Your task to perform on an android device: Add logitech g910 to the cart on newegg, then select checkout. Image 0: 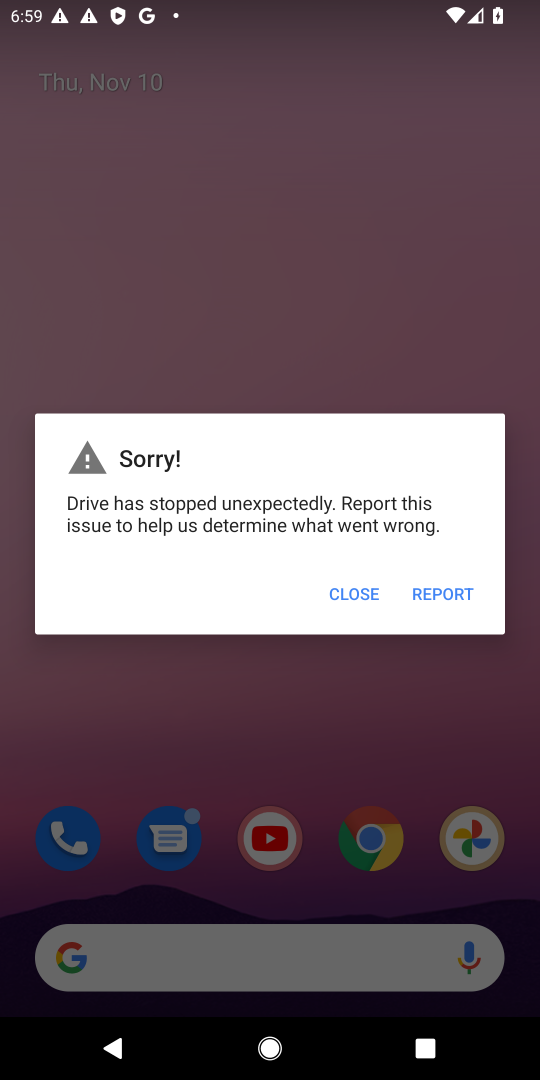
Step 0: press home button
Your task to perform on an android device: Add logitech g910 to the cart on newegg, then select checkout. Image 1: 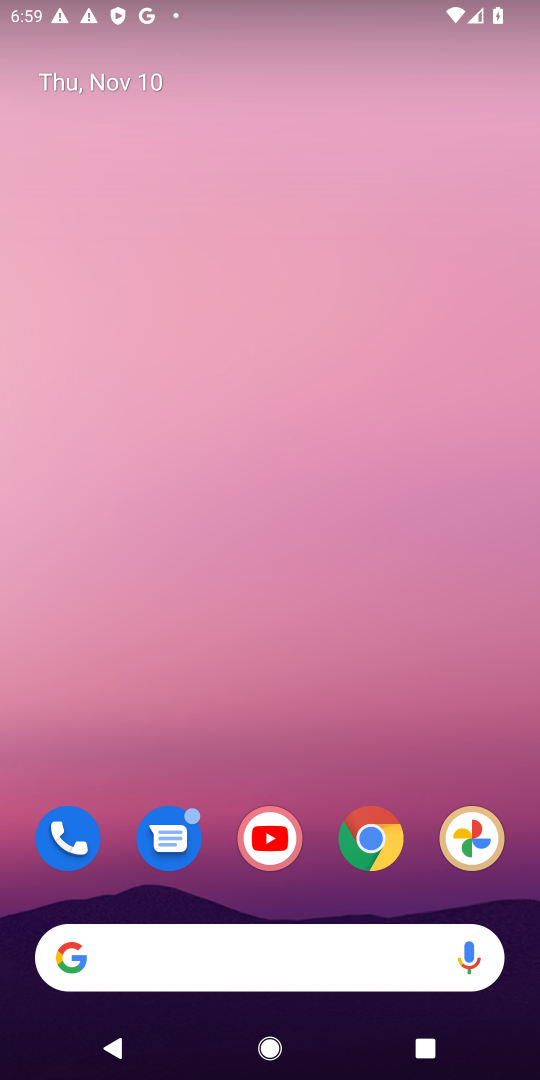
Step 1: drag from (331, 906) to (414, 14)
Your task to perform on an android device: Add logitech g910 to the cart on newegg, then select checkout. Image 2: 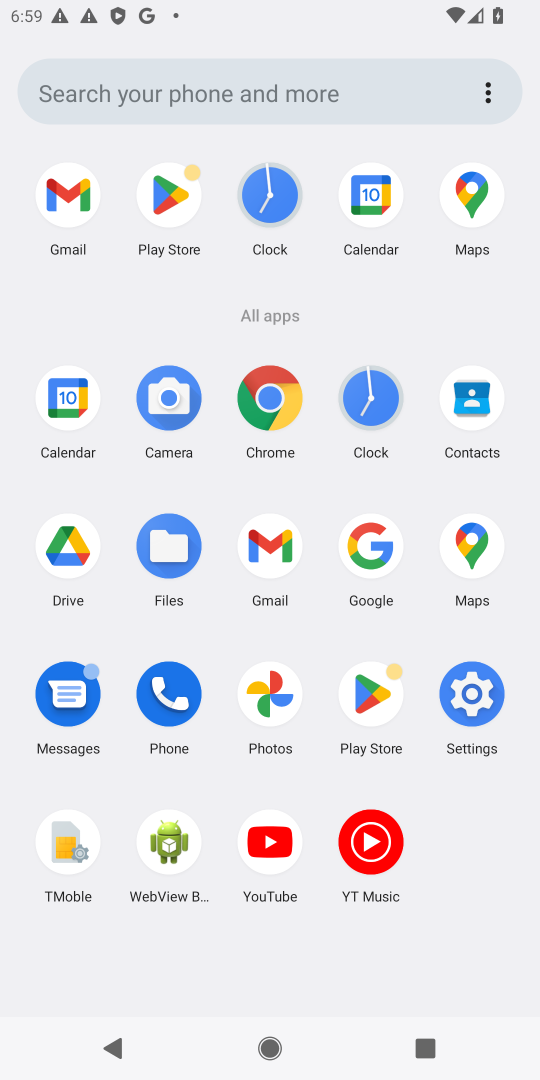
Step 2: click (269, 392)
Your task to perform on an android device: Add logitech g910 to the cart on newegg, then select checkout. Image 3: 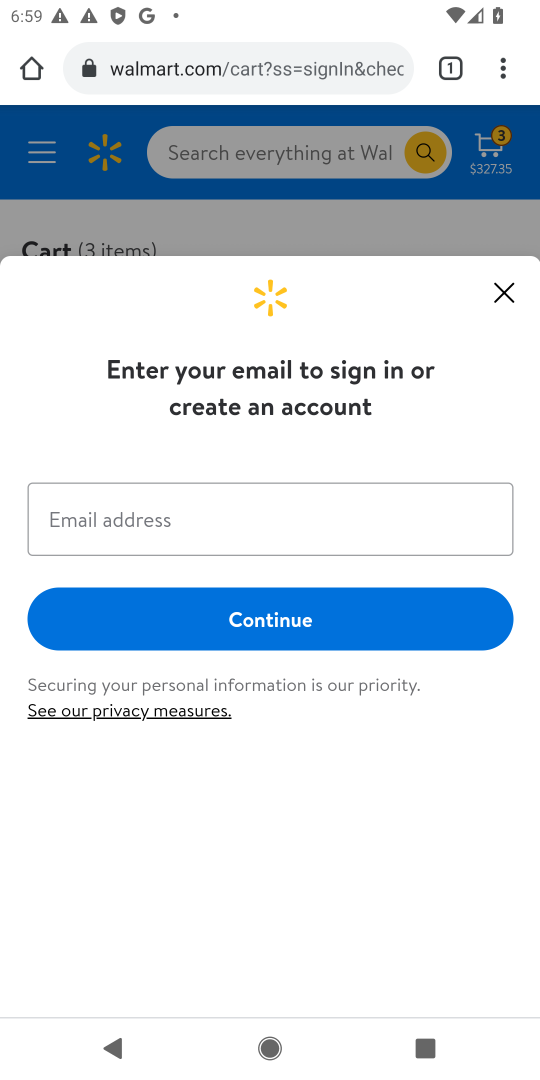
Step 3: click (261, 57)
Your task to perform on an android device: Add logitech g910 to the cart on newegg, then select checkout. Image 4: 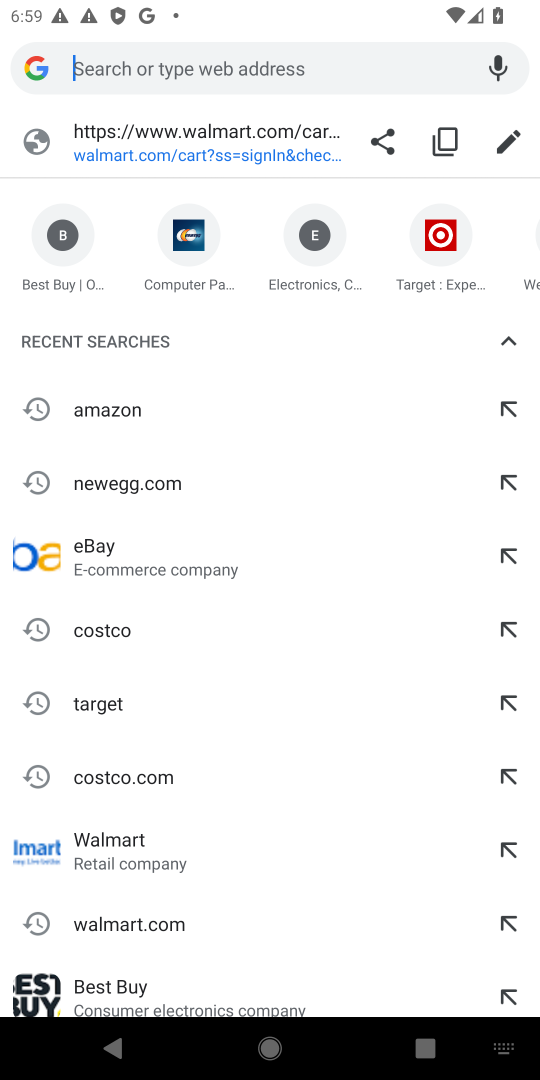
Step 4: type "newegg.com"
Your task to perform on an android device: Add logitech g910 to the cart on newegg, then select checkout. Image 5: 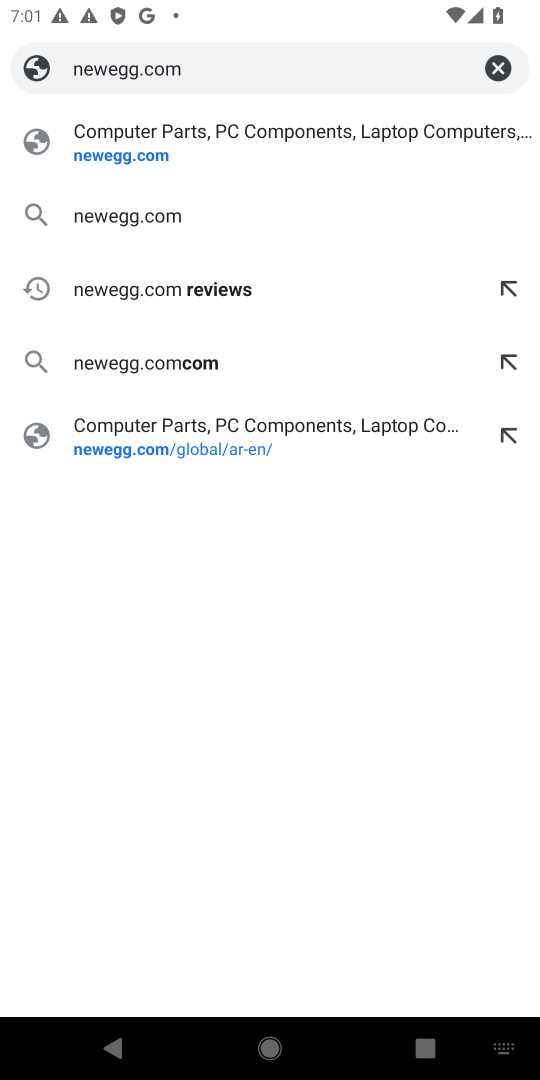
Step 5: press enter
Your task to perform on an android device: Add logitech g910 to the cart on newegg, then select checkout. Image 6: 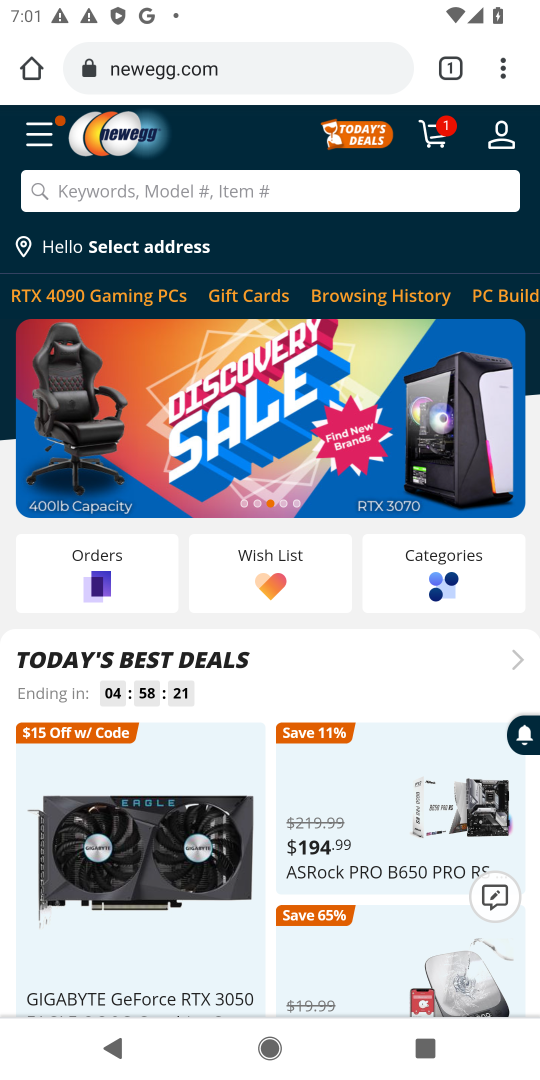
Step 6: click (299, 191)
Your task to perform on an android device: Add logitech g910 to the cart on newegg, then select checkout. Image 7: 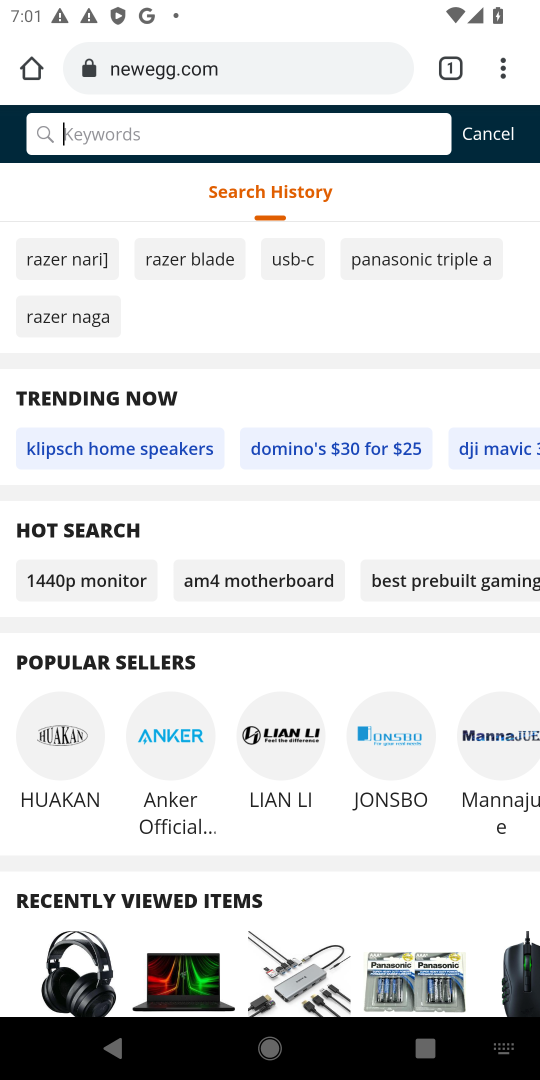
Step 7: type "logitech g910"
Your task to perform on an android device: Add logitech g910 to the cart on newegg, then select checkout. Image 8: 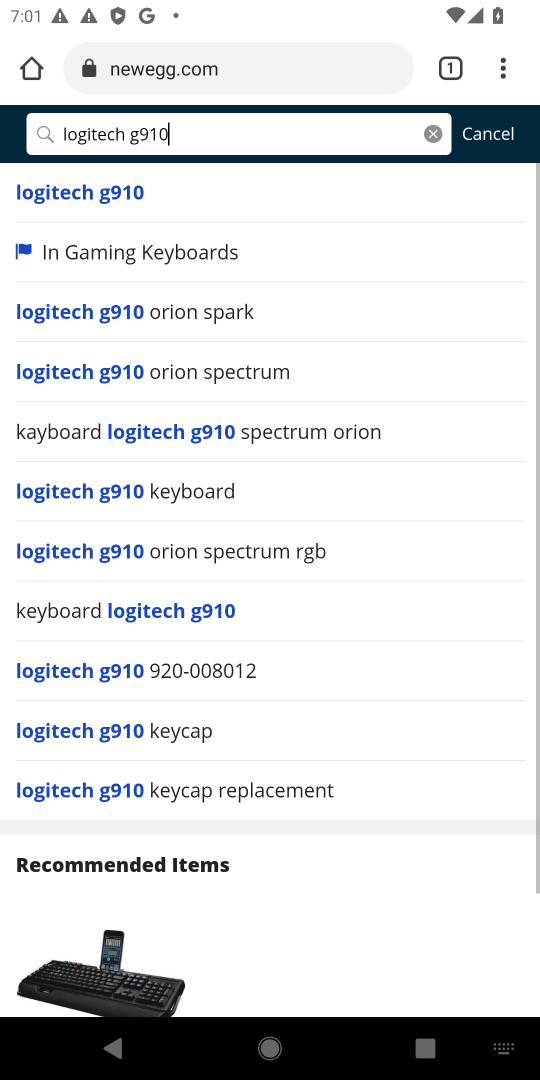
Step 8: press enter
Your task to perform on an android device: Add logitech g910 to the cart on newegg, then select checkout. Image 9: 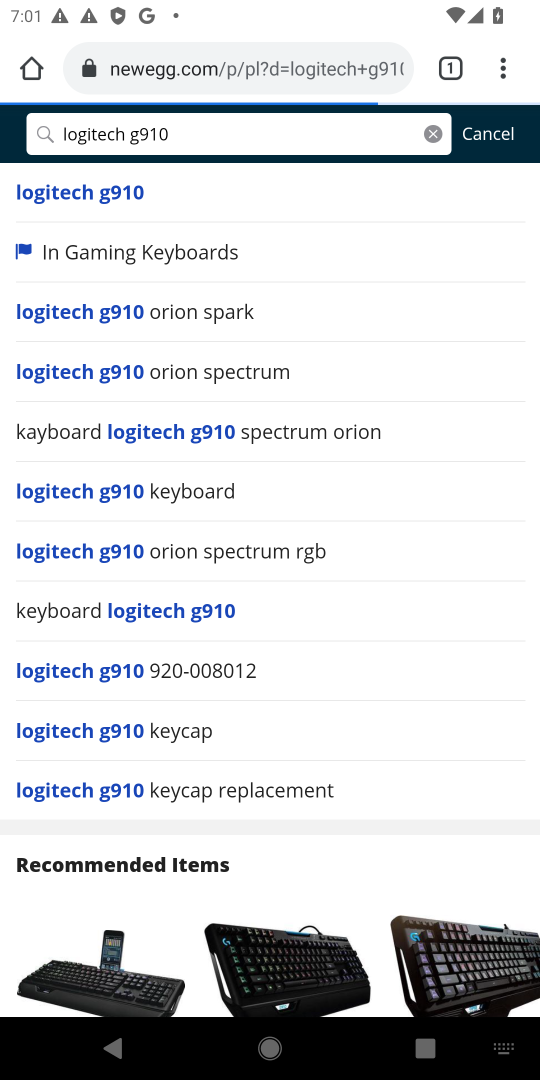
Step 9: press enter
Your task to perform on an android device: Add logitech g910 to the cart on newegg, then select checkout. Image 10: 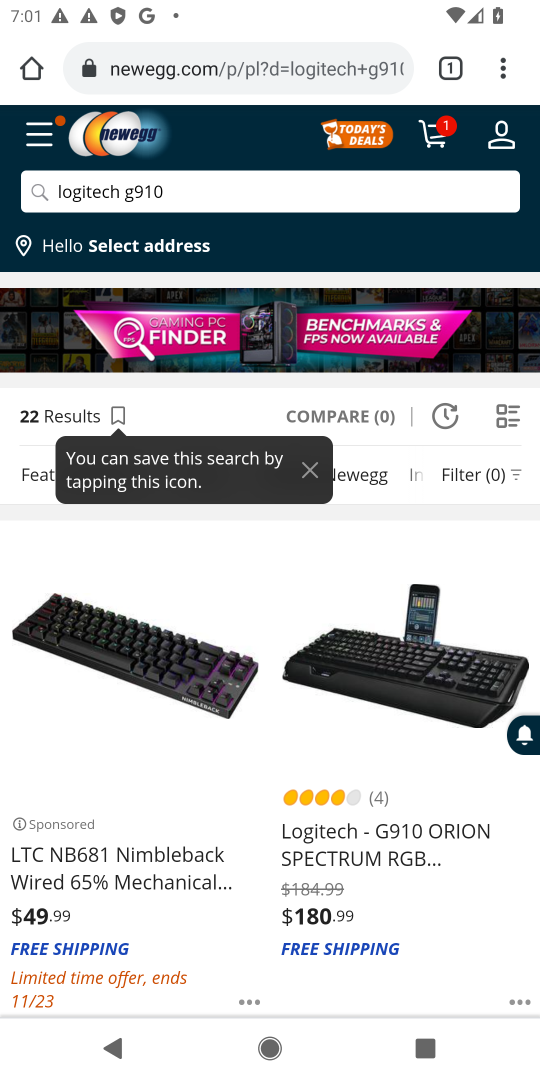
Step 10: drag from (361, 766) to (370, 612)
Your task to perform on an android device: Add logitech g910 to the cart on newegg, then select checkout. Image 11: 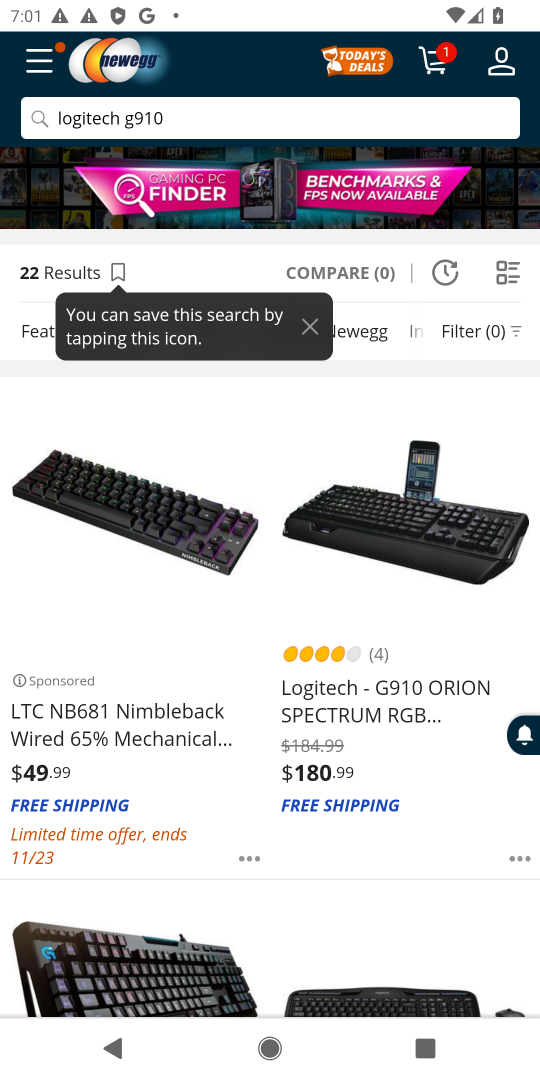
Step 11: click (380, 700)
Your task to perform on an android device: Add logitech g910 to the cart on newegg, then select checkout. Image 12: 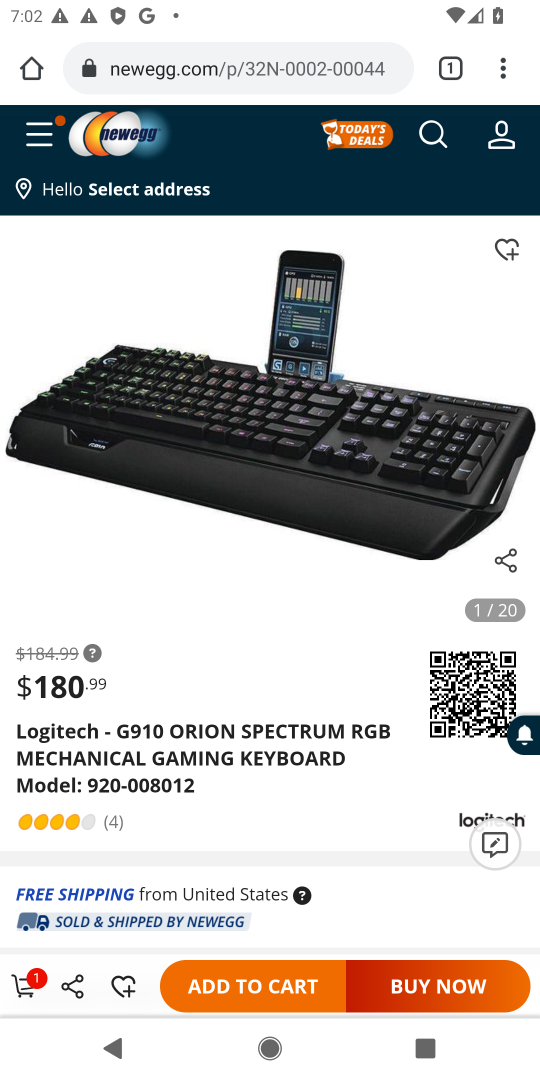
Step 12: click (279, 992)
Your task to perform on an android device: Add logitech g910 to the cart on newegg, then select checkout. Image 13: 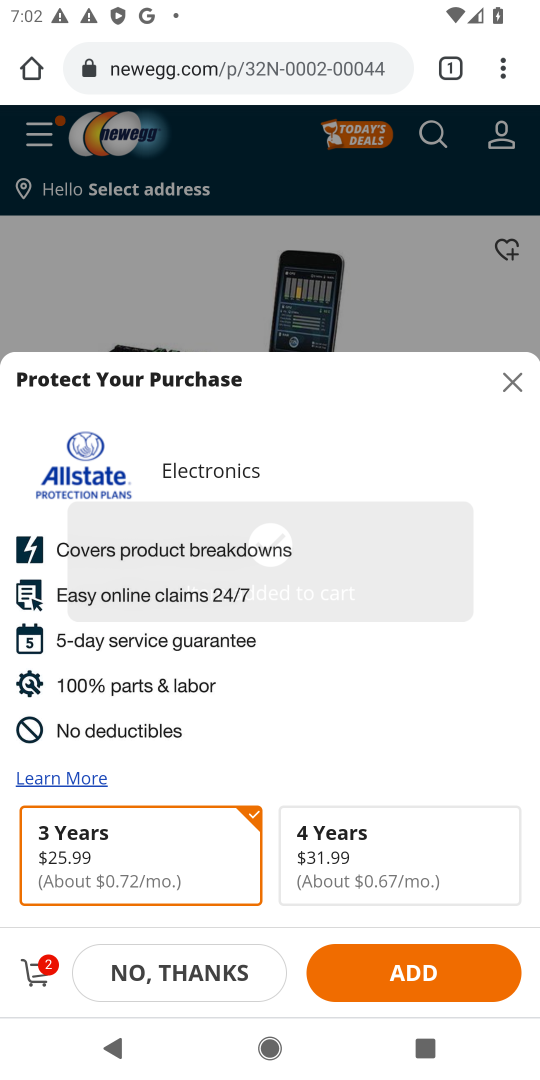
Step 13: drag from (328, 909) to (350, 281)
Your task to perform on an android device: Add logitech g910 to the cart on newegg, then select checkout. Image 14: 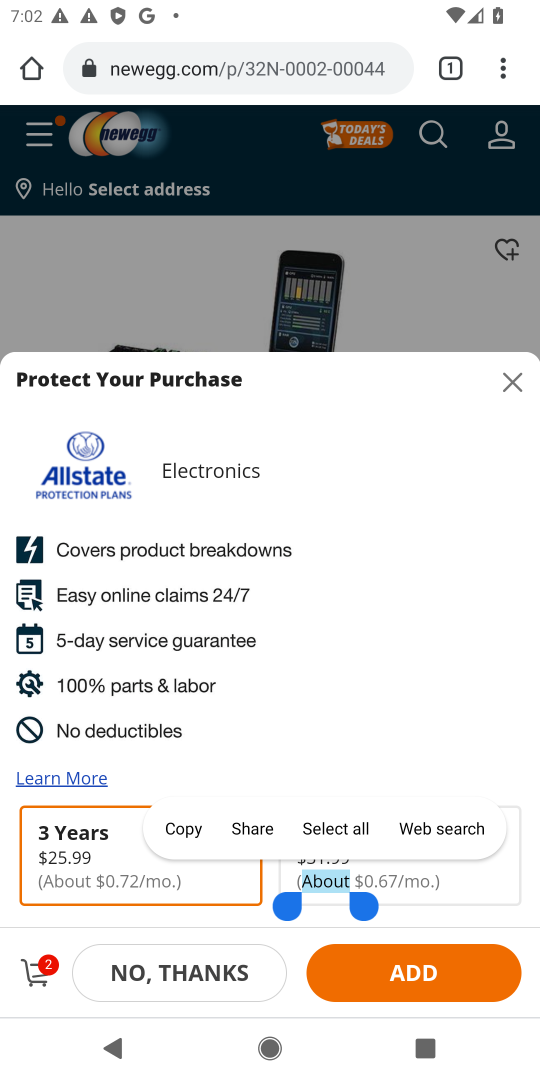
Step 14: click (47, 960)
Your task to perform on an android device: Add logitech g910 to the cart on newegg, then select checkout. Image 15: 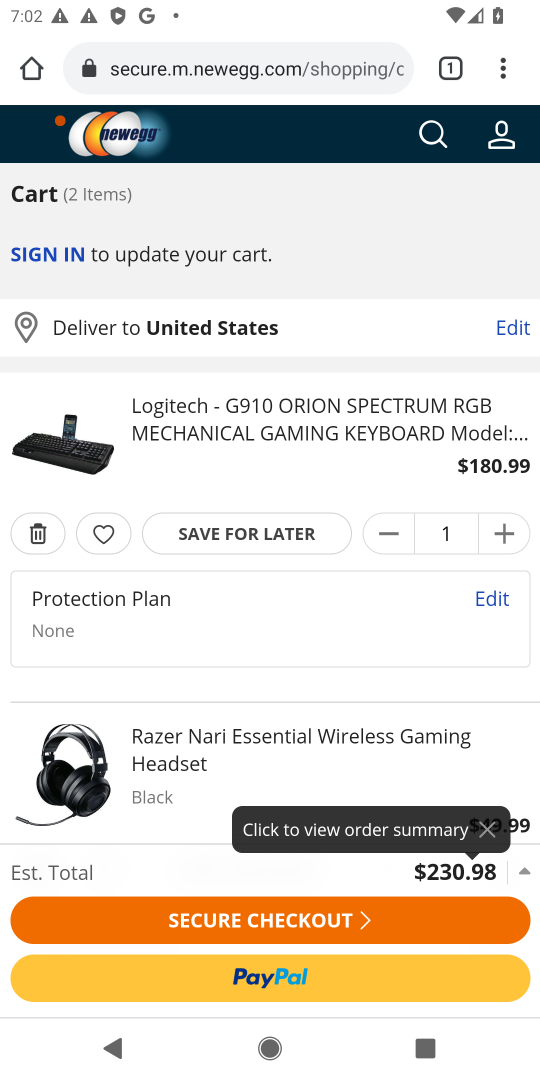
Step 15: drag from (326, 979) to (370, 663)
Your task to perform on an android device: Add logitech g910 to the cart on newegg, then select checkout. Image 16: 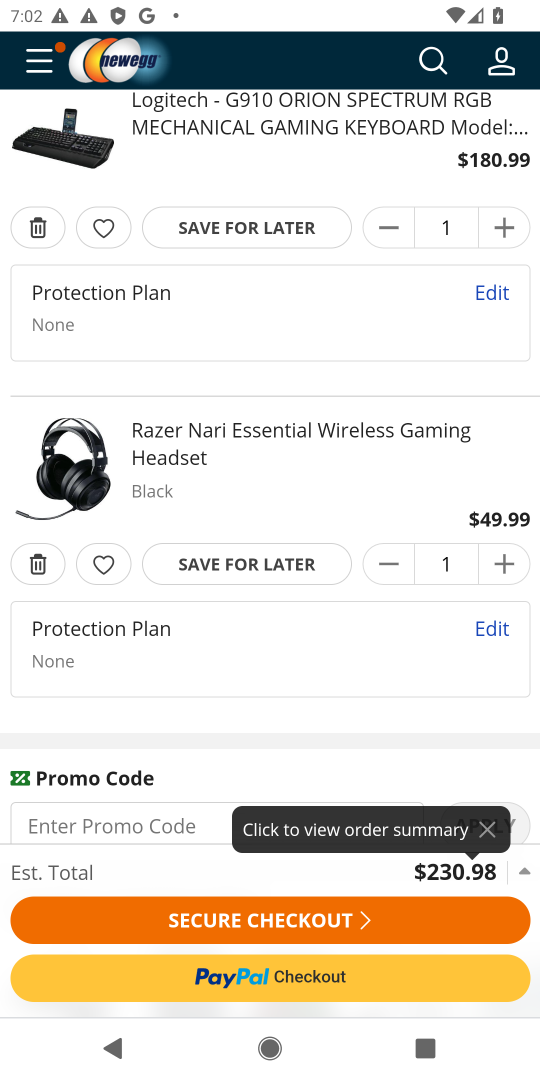
Step 16: click (340, 907)
Your task to perform on an android device: Add logitech g910 to the cart on newegg, then select checkout. Image 17: 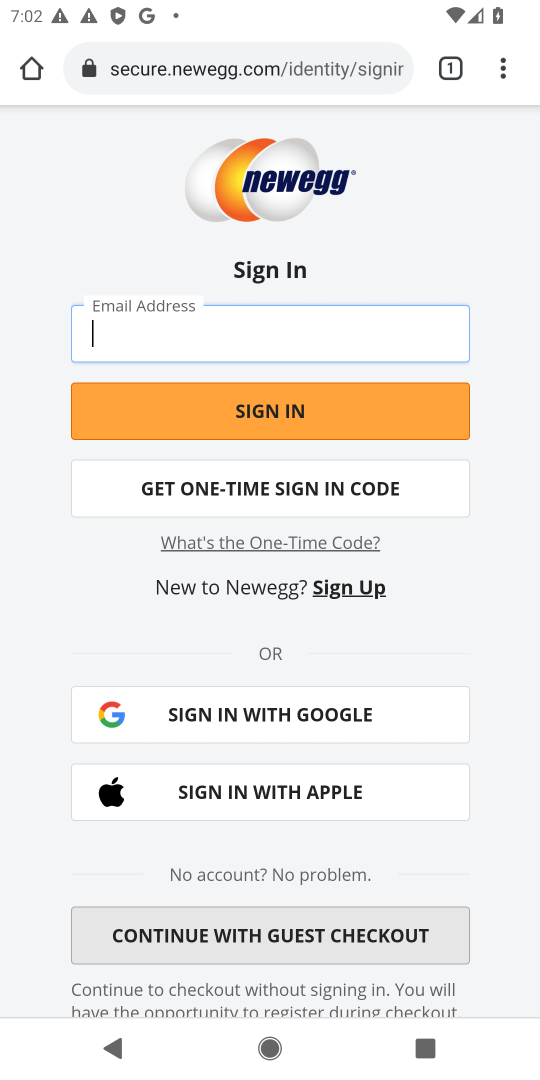
Step 17: task complete